Your task to perform on an android device: move a message to another label in the gmail app Image 0: 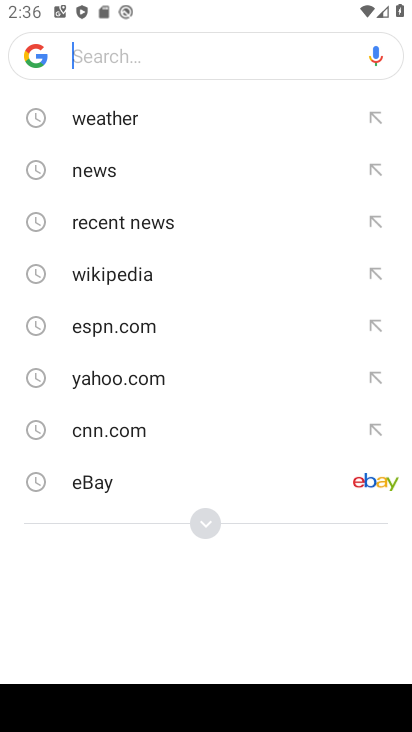
Step 0: press home button
Your task to perform on an android device: move a message to another label in the gmail app Image 1: 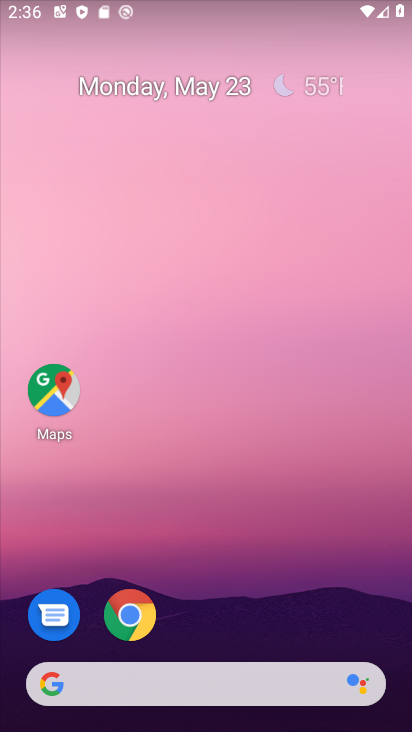
Step 1: drag from (339, 645) to (353, 180)
Your task to perform on an android device: move a message to another label in the gmail app Image 2: 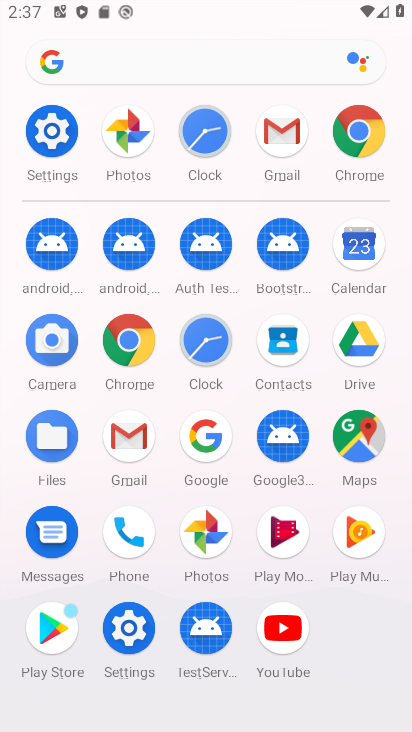
Step 2: click (126, 457)
Your task to perform on an android device: move a message to another label in the gmail app Image 3: 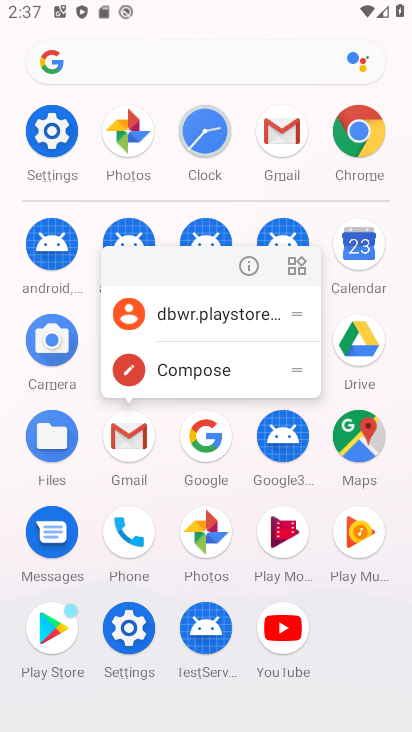
Step 3: click (126, 457)
Your task to perform on an android device: move a message to another label in the gmail app Image 4: 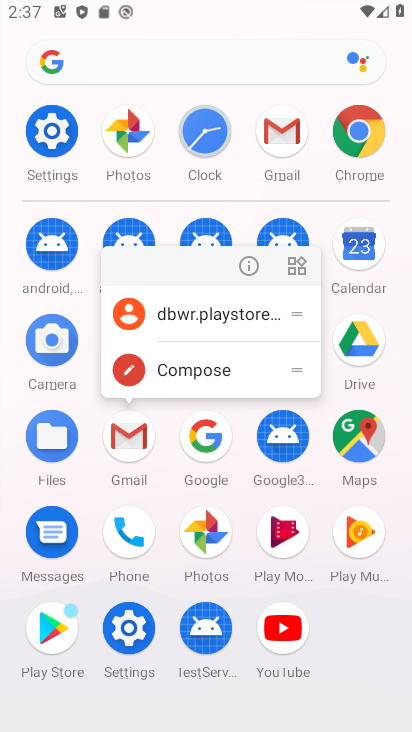
Step 4: click (126, 457)
Your task to perform on an android device: move a message to another label in the gmail app Image 5: 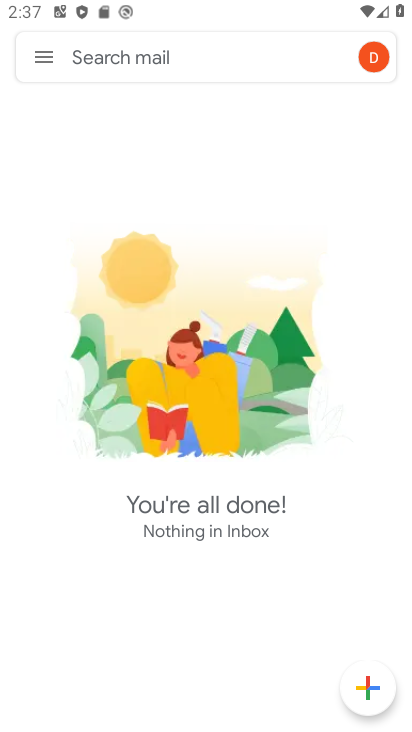
Step 5: click (43, 68)
Your task to perform on an android device: move a message to another label in the gmail app Image 6: 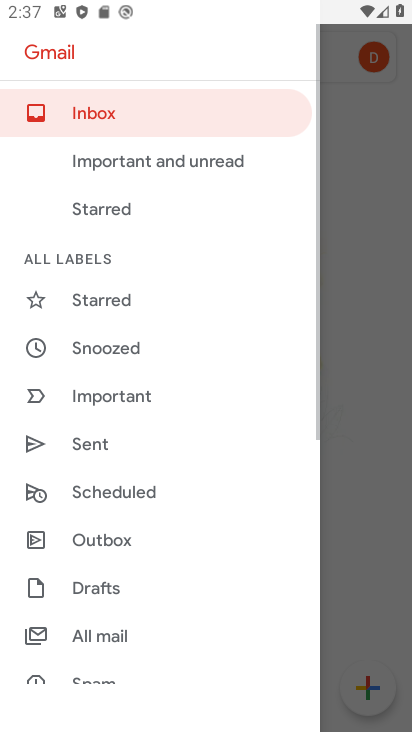
Step 6: drag from (218, 487) to (226, 397)
Your task to perform on an android device: move a message to another label in the gmail app Image 7: 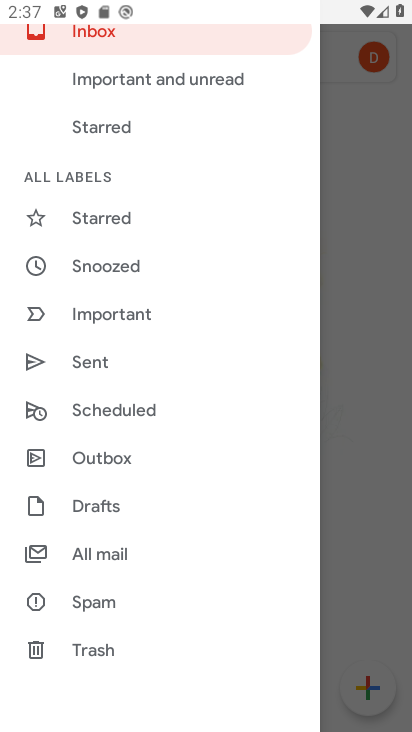
Step 7: drag from (248, 550) to (251, 429)
Your task to perform on an android device: move a message to another label in the gmail app Image 8: 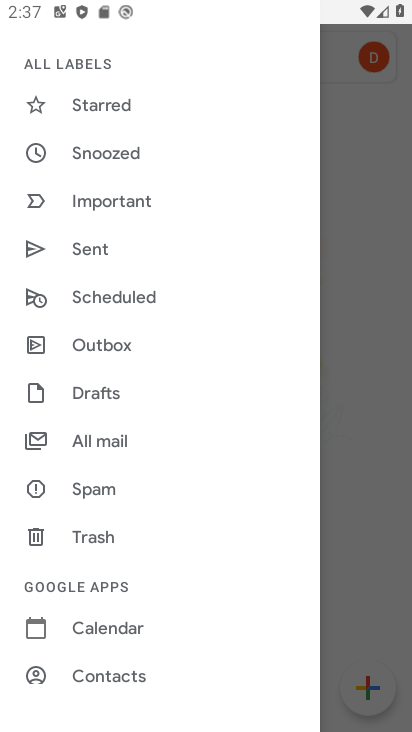
Step 8: drag from (224, 520) to (224, 431)
Your task to perform on an android device: move a message to another label in the gmail app Image 9: 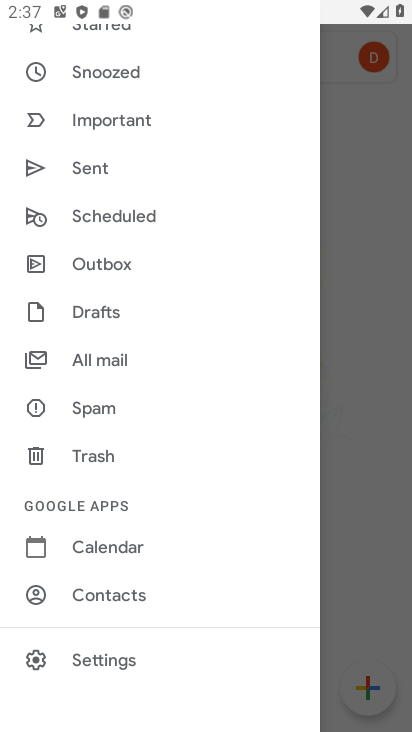
Step 9: drag from (227, 559) to (234, 447)
Your task to perform on an android device: move a message to another label in the gmail app Image 10: 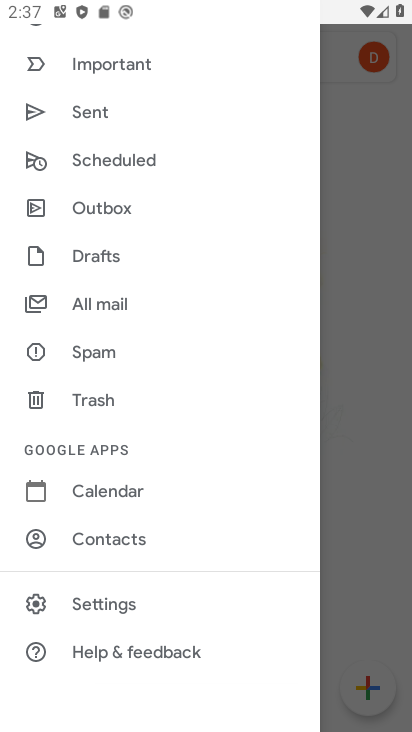
Step 10: drag from (224, 559) to (220, 464)
Your task to perform on an android device: move a message to another label in the gmail app Image 11: 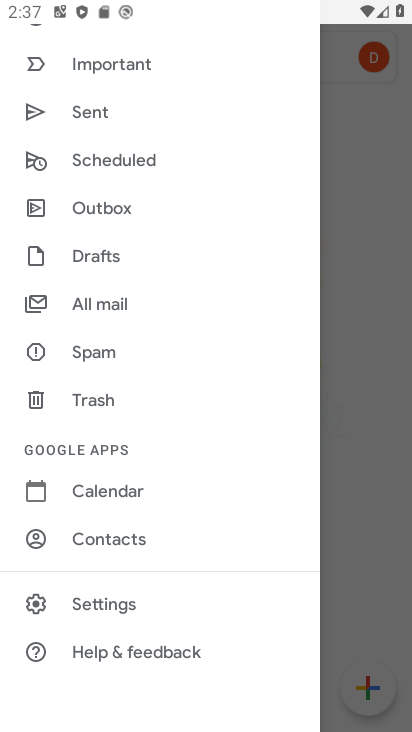
Step 11: drag from (232, 391) to (237, 474)
Your task to perform on an android device: move a message to another label in the gmail app Image 12: 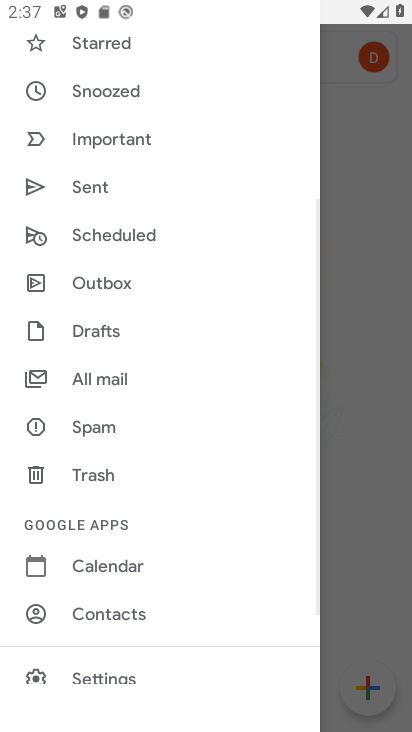
Step 12: drag from (233, 352) to (225, 447)
Your task to perform on an android device: move a message to another label in the gmail app Image 13: 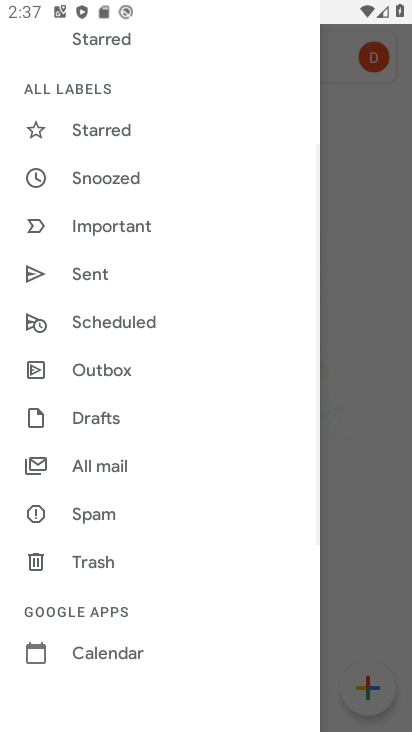
Step 13: drag from (239, 326) to (247, 426)
Your task to perform on an android device: move a message to another label in the gmail app Image 14: 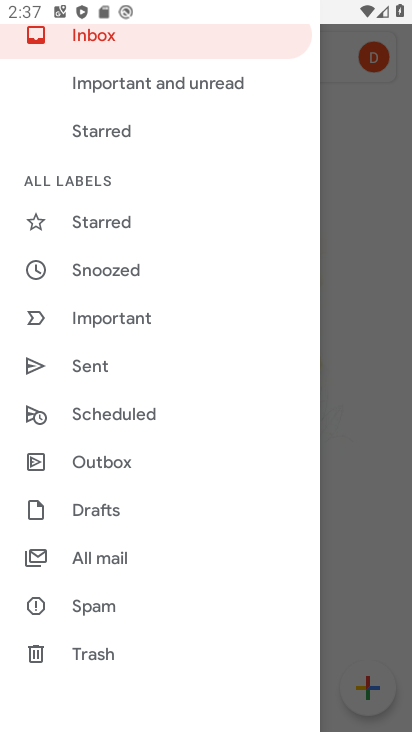
Step 14: drag from (237, 307) to (237, 394)
Your task to perform on an android device: move a message to another label in the gmail app Image 15: 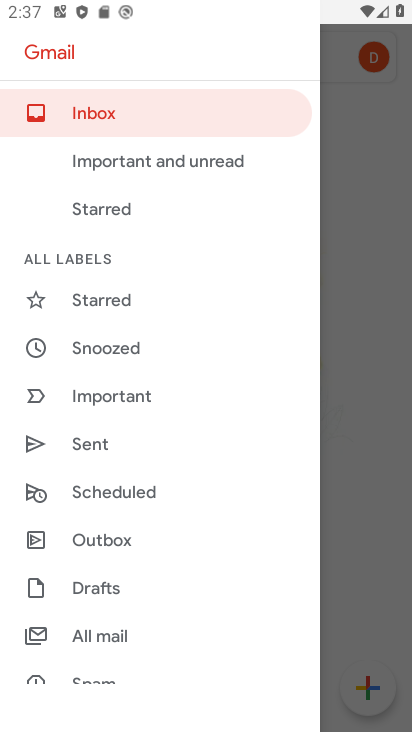
Step 15: drag from (238, 273) to (247, 371)
Your task to perform on an android device: move a message to another label in the gmail app Image 16: 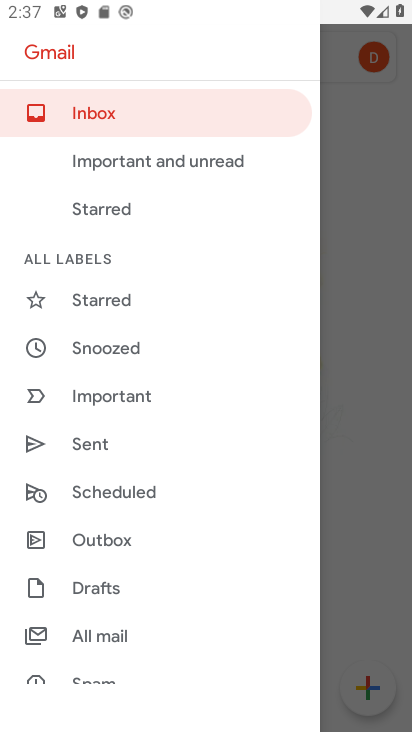
Step 16: click (152, 116)
Your task to perform on an android device: move a message to another label in the gmail app Image 17: 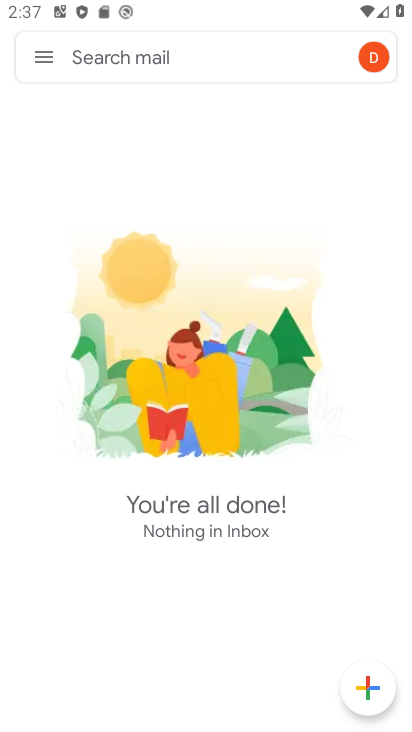
Step 17: task complete